Your task to perform on an android device: Open Google Chrome and click the shortcut for Amazon.com Image 0: 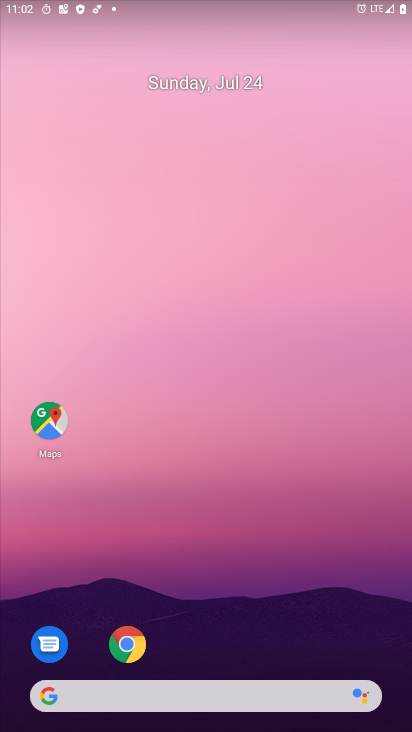
Step 0: drag from (267, 664) to (282, 163)
Your task to perform on an android device: Open Google Chrome and click the shortcut for Amazon.com Image 1: 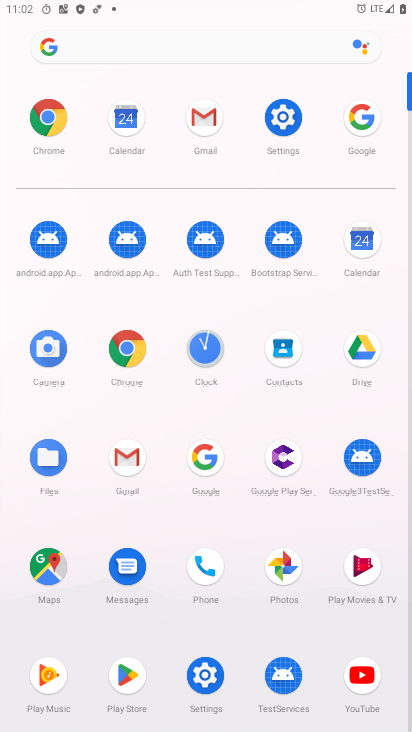
Step 1: click (132, 348)
Your task to perform on an android device: Open Google Chrome and click the shortcut for Amazon.com Image 2: 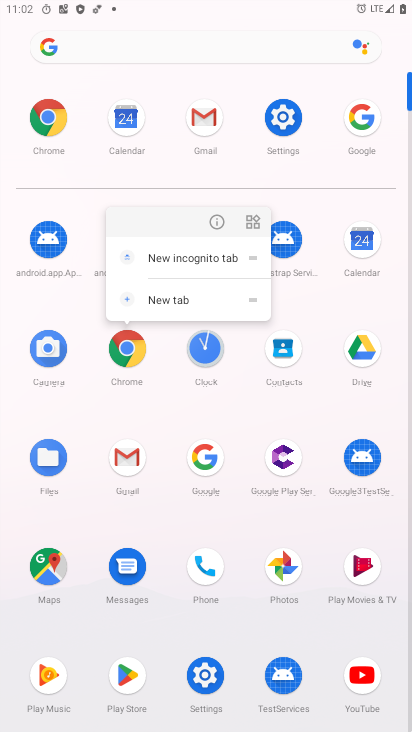
Step 2: click (132, 348)
Your task to perform on an android device: Open Google Chrome and click the shortcut for Amazon.com Image 3: 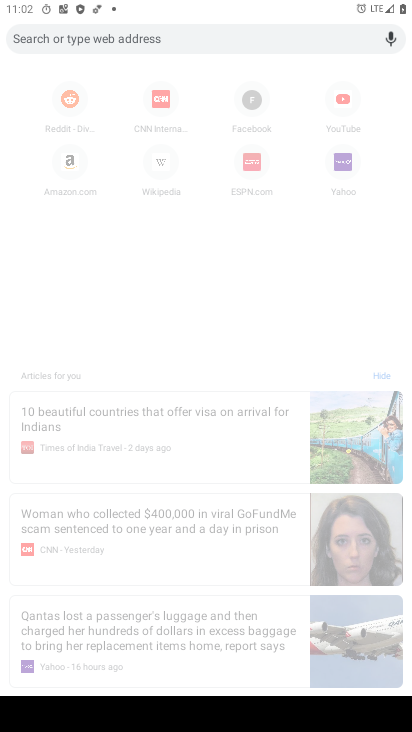
Step 3: click (66, 163)
Your task to perform on an android device: Open Google Chrome and click the shortcut for Amazon.com Image 4: 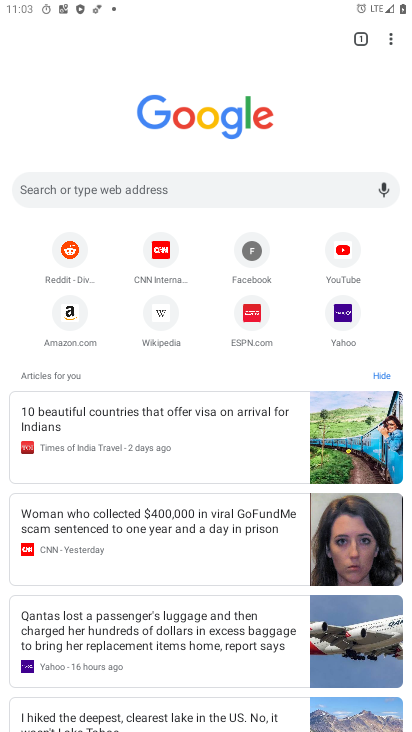
Step 4: click (63, 318)
Your task to perform on an android device: Open Google Chrome and click the shortcut for Amazon.com Image 5: 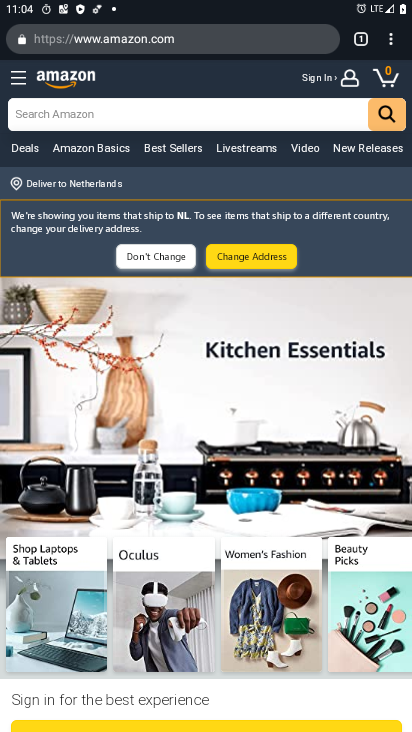
Step 5: task complete